Your task to perform on an android device: toggle wifi Image 0: 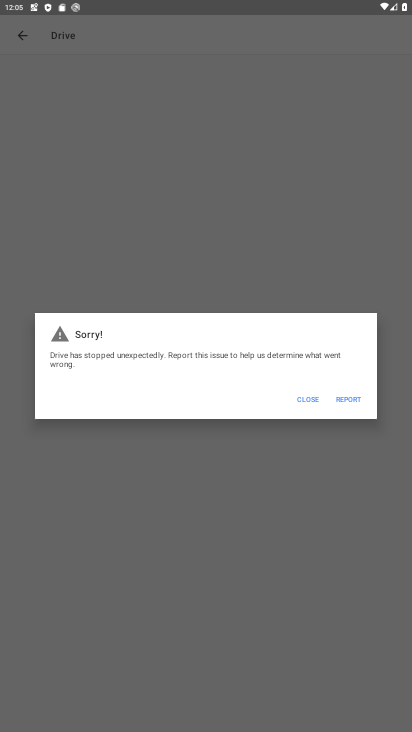
Step 0: click (353, 400)
Your task to perform on an android device: toggle wifi Image 1: 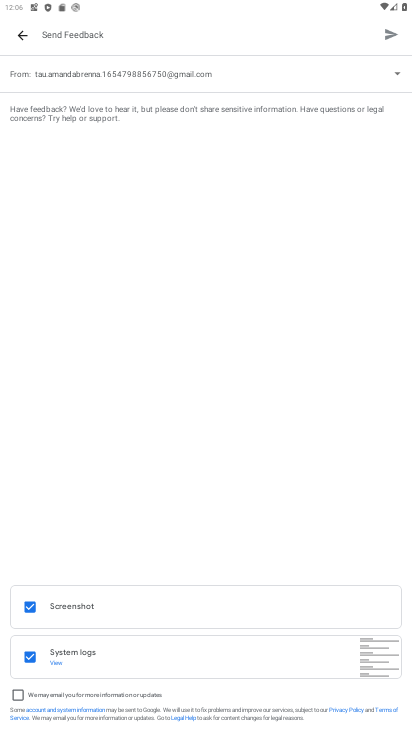
Step 1: click (387, 31)
Your task to perform on an android device: toggle wifi Image 2: 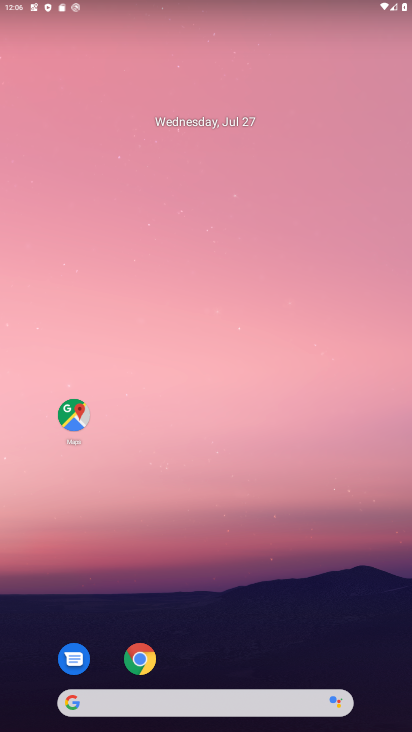
Step 2: drag from (143, 5) to (100, 638)
Your task to perform on an android device: toggle wifi Image 3: 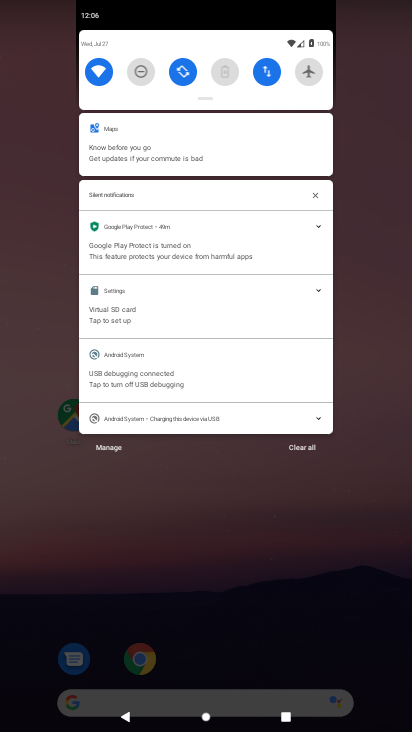
Step 3: click (100, 74)
Your task to perform on an android device: toggle wifi Image 4: 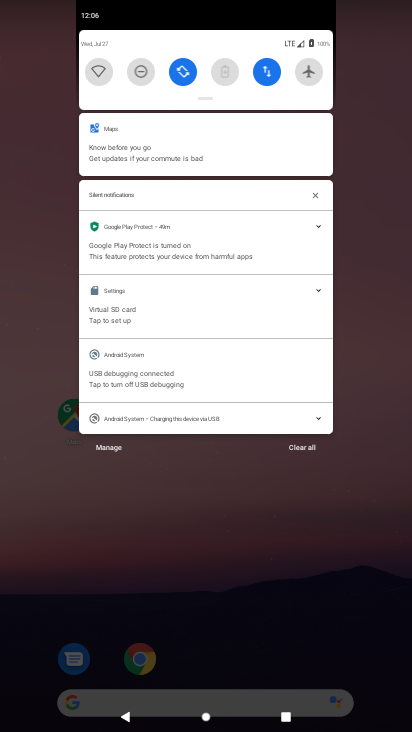
Step 4: task complete